Your task to perform on an android device: Play the last video I watched on Youtube Image 0: 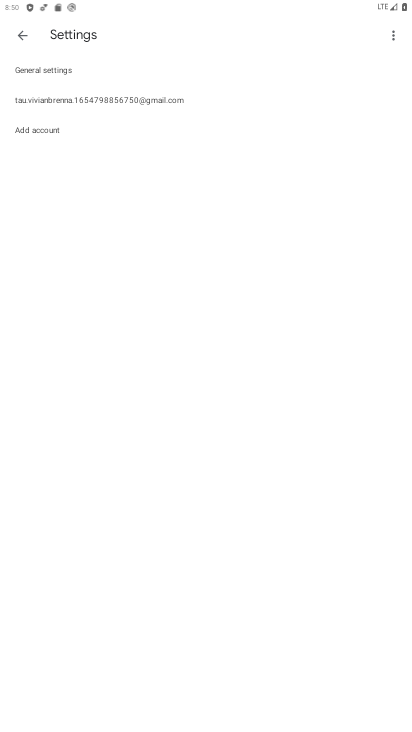
Step 0: press home button
Your task to perform on an android device: Play the last video I watched on Youtube Image 1: 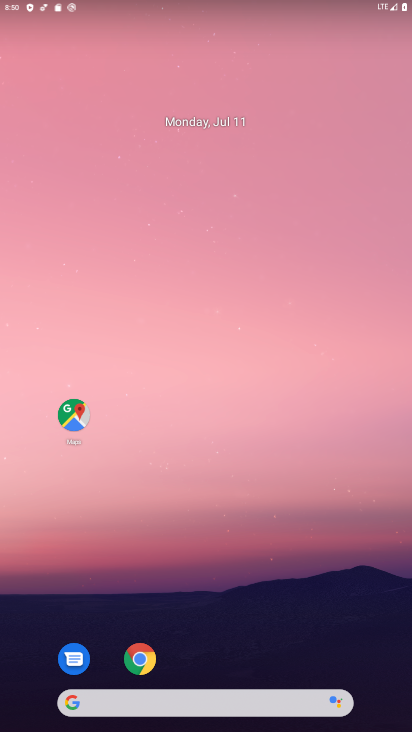
Step 1: drag from (16, 698) to (204, 5)
Your task to perform on an android device: Play the last video I watched on Youtube Image 2: 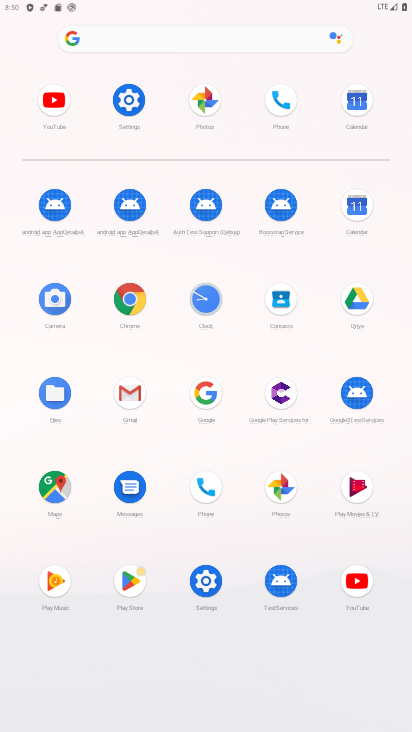
Step 2: click (348, 583)
Your task to perform on an android device: Play the last video I watched on Youtube Image 3: 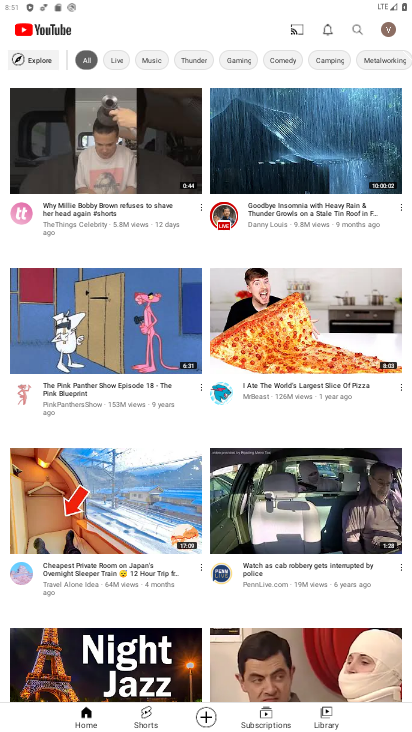
Step 3: click (324, 709)
Your task to perform on an android device: Play the last video I watched on Youtube Image 4: 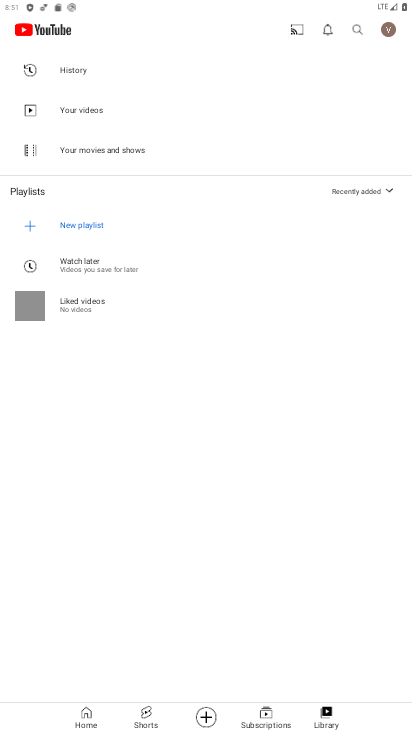
Step 4: click (91, 69)
Your task to perform on an android device: Play the last video I watched on Youtube Image 5: 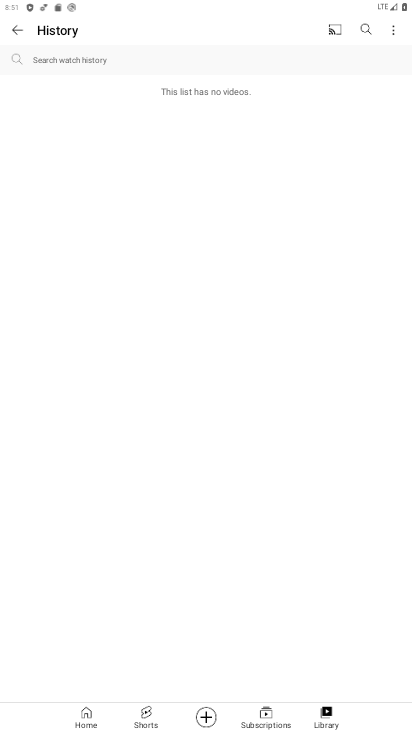
Step 5: task complete